Your task to perform on an android device: turn pop-ups on in chrome Image 0: 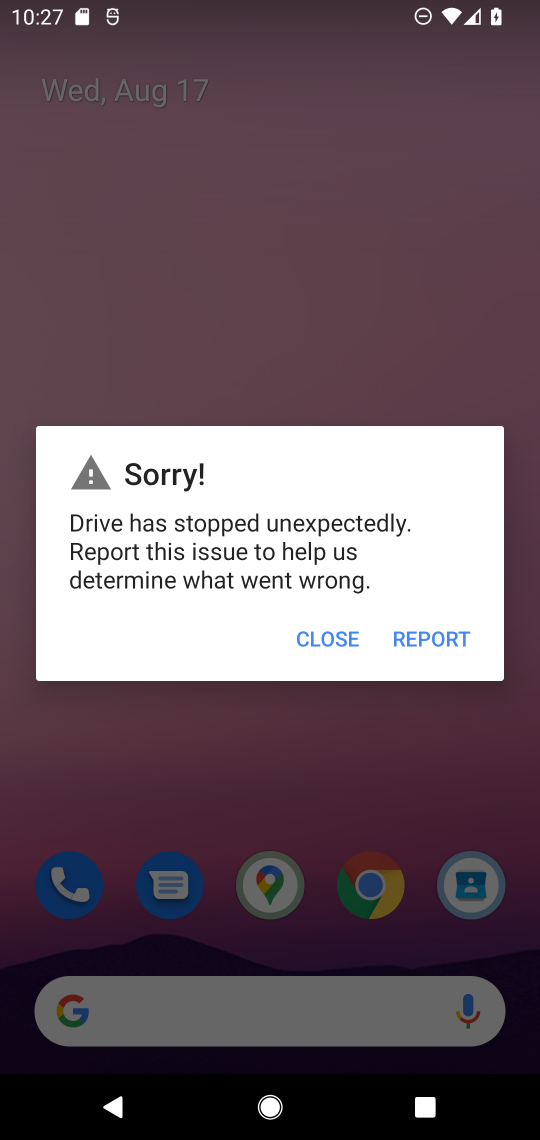
Step 0: press home button
Your task to perform on an android device: turn pop-ups on in chrome Image 1: 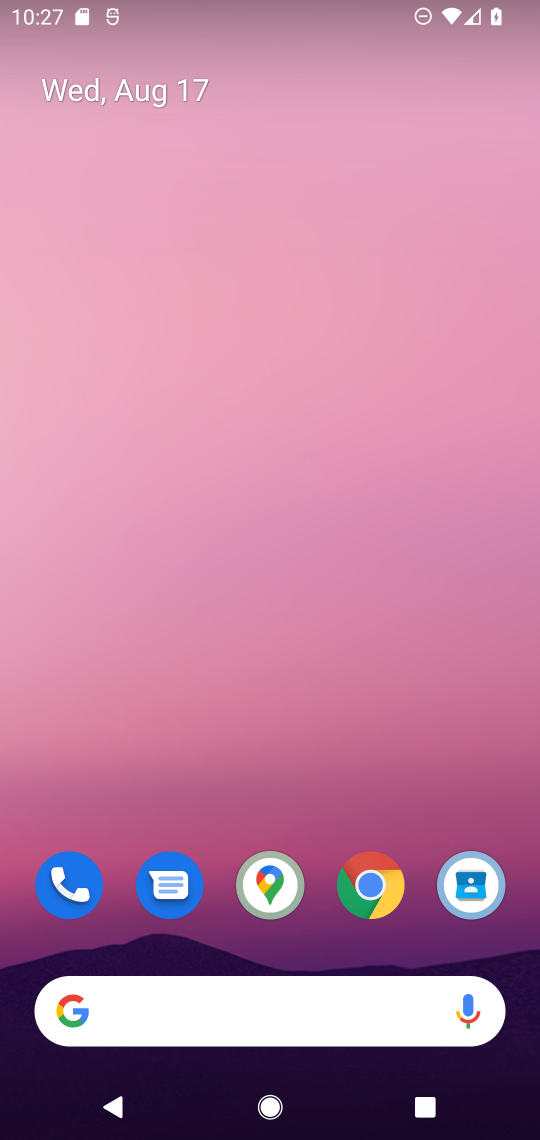
Step 1: click (367, 882)
Your task to perform on an android device: turn pop-ups on in chrome Image 2: 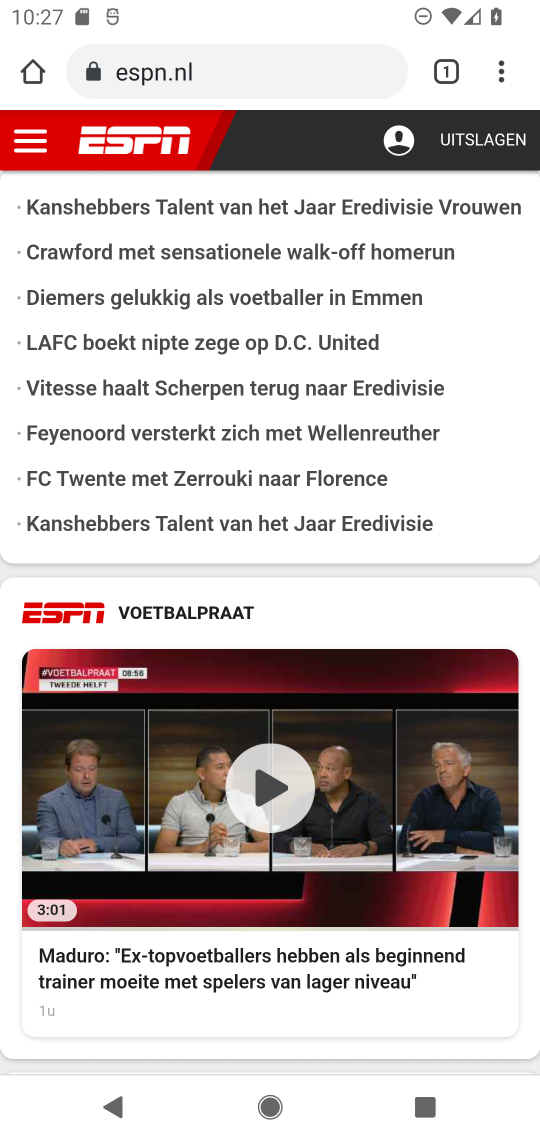
Step 2: click (492, 78)
Your task to perform on an android device: turn pop-ups on in chrome Image 3: 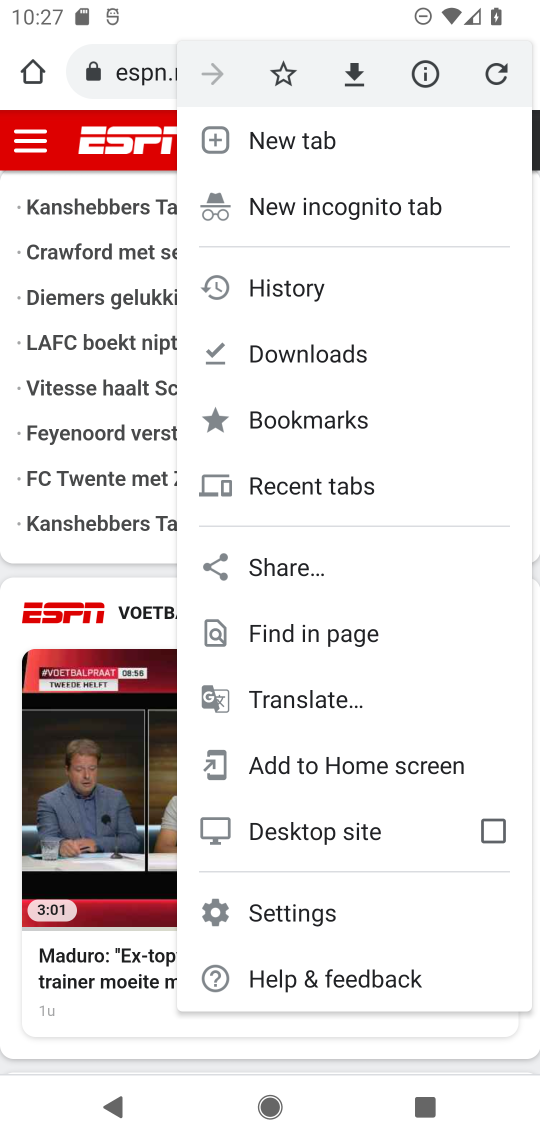
Step 3: click (310, 912)
Your task to perform on an android device: turn pop-ups on in chrome Image 4: 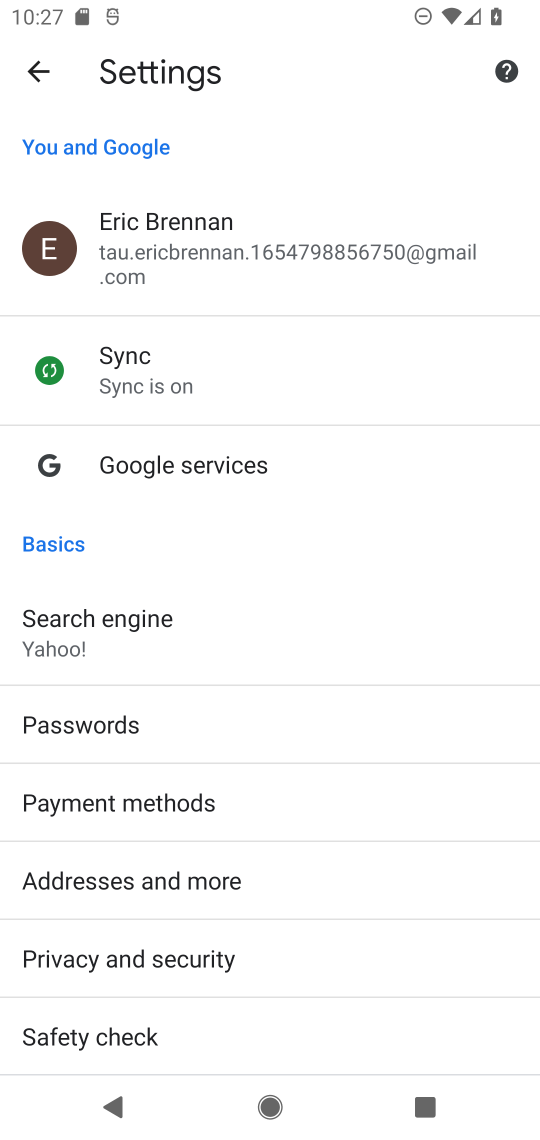
Step 4: drag from (374, 999) to (382, 434)
Your task to perform on an android device: turn pop-ups on in chrome Image 5: 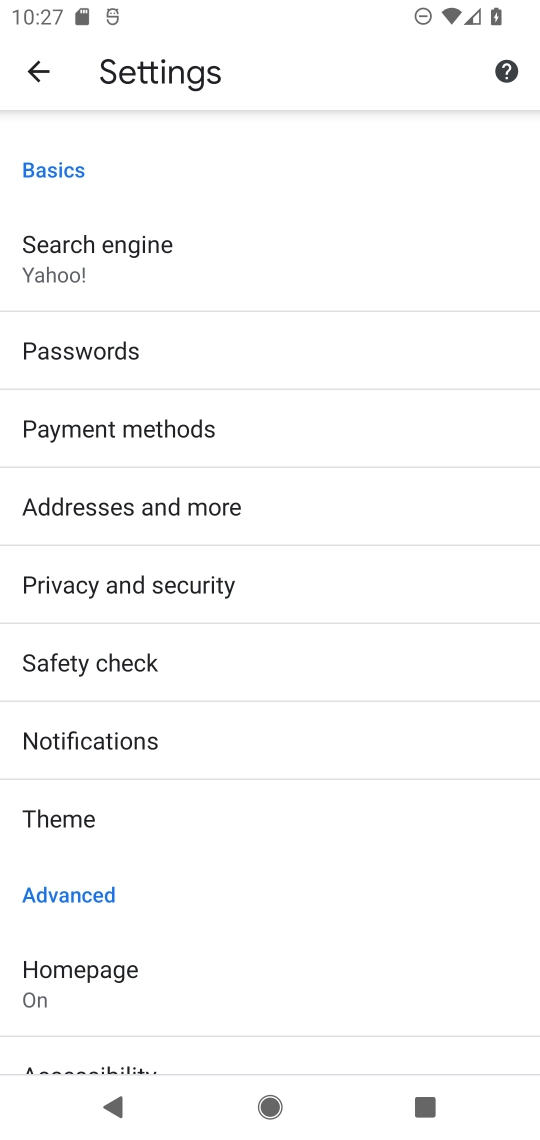
Step 5: drag from (301, 973) to (341, 441)
Your task to perform on an android device: turn pop-ups on in chrome Image 6: 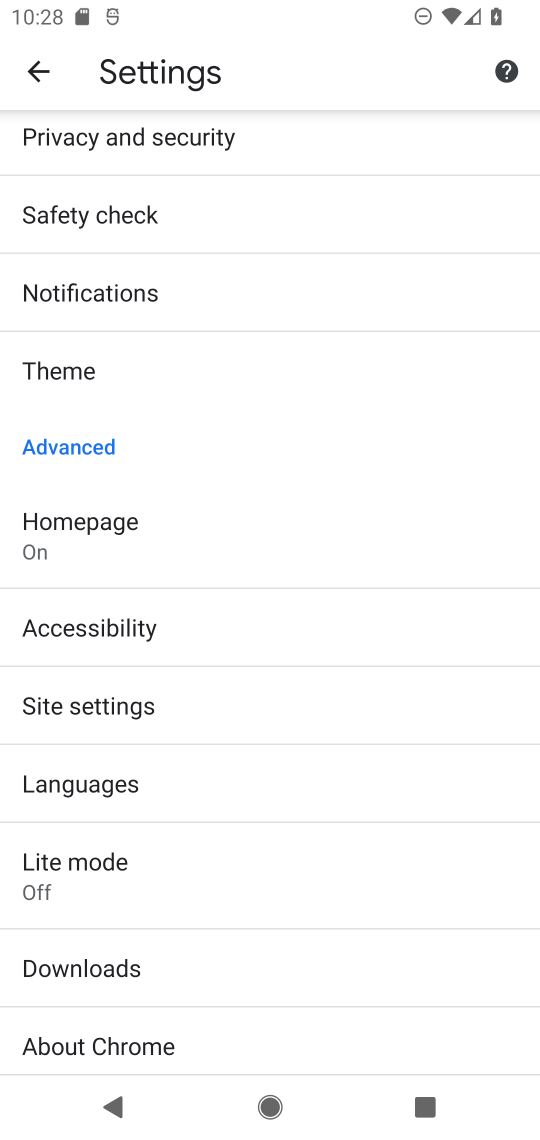
Step 6: click (84, 701)
Your task to perform on an android device: turn pop-ups on in chrome Image 7: 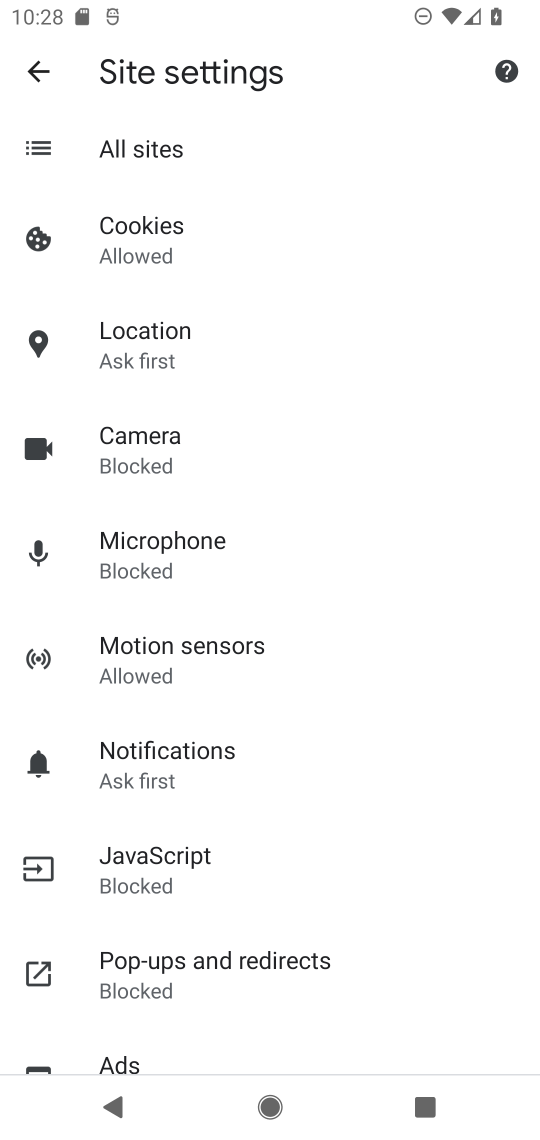
Step 7: click (141, 953)
Your task to perform on an android device: turn pop-ups on in chrome Image 8: 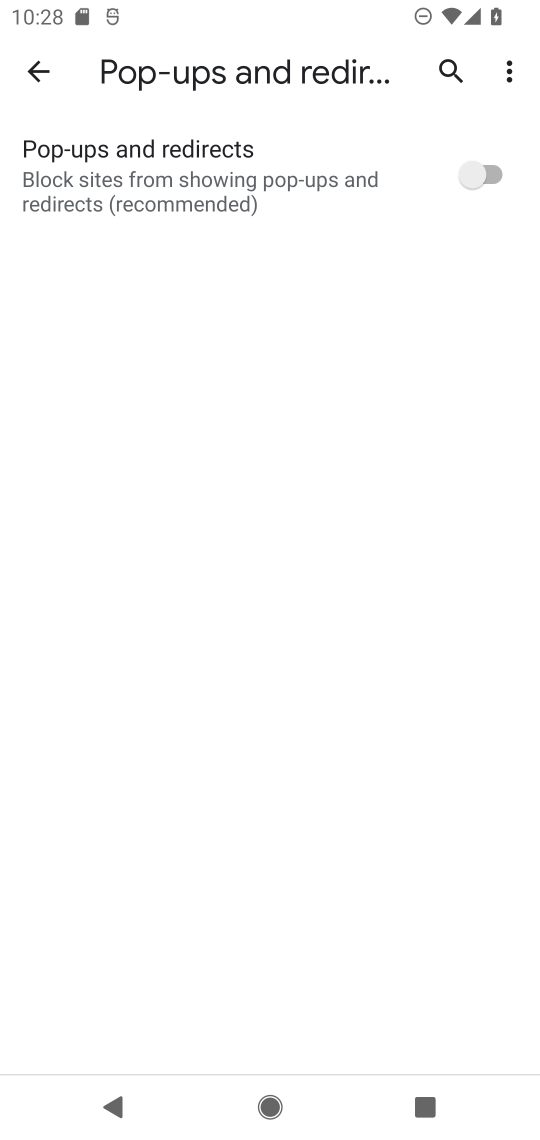
Step 8: click (491, 169)
Your task to perform on an android device: turn pop-ups on in chrome Image 9: 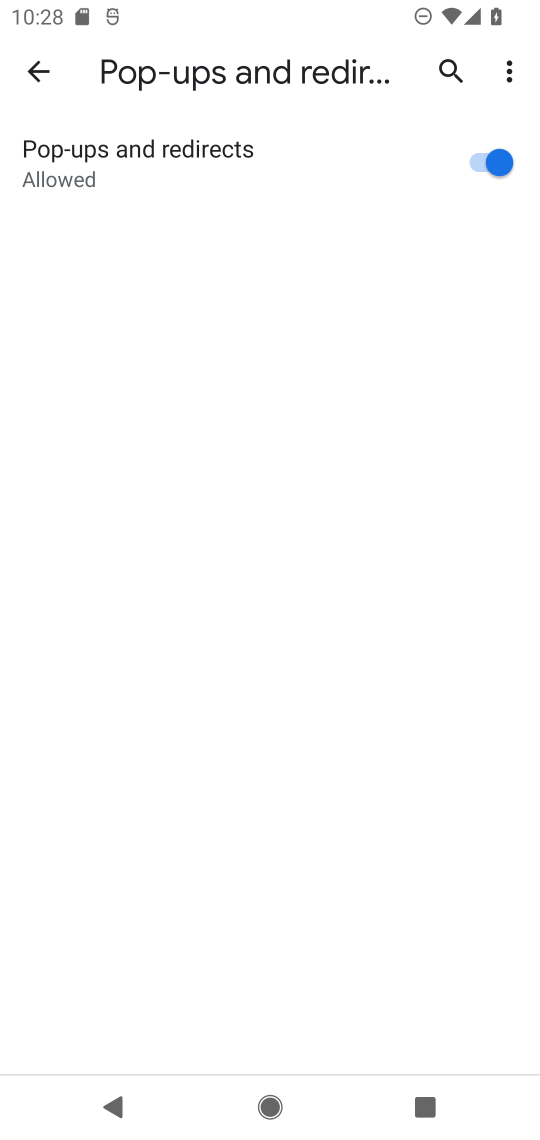
Step 9: task complete